Your task to perform on an android device: Open Google Chrome and open the bookmarks view Image 0: 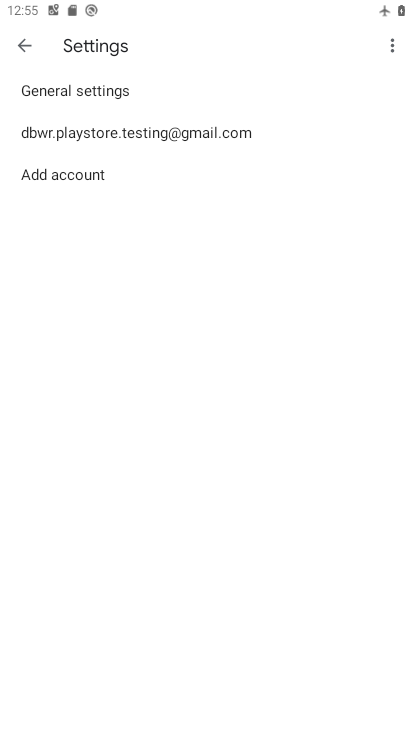
Step 0: press home button
Your task to perform on an android device: Open Google Chrome and open the bookmarks view Image 1: 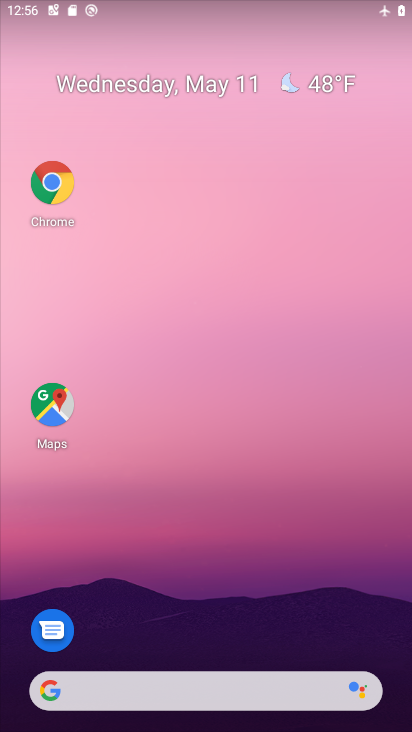
Step 1: drag from (215, 653) to (174, 9)
Your task to perform on an android device: Open Google Chrome and open the bookmarks view Image 2: 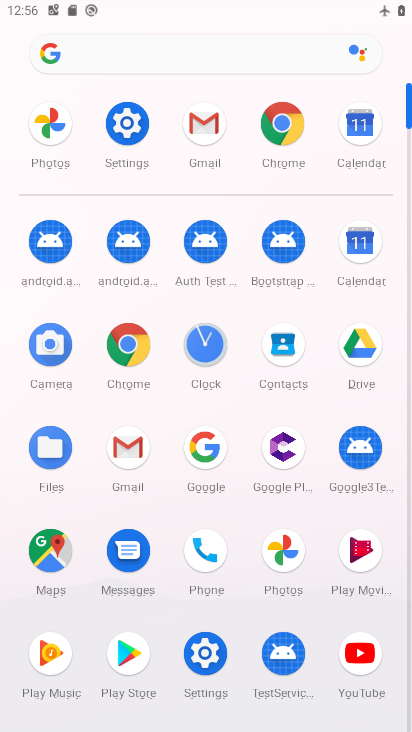
Step 2: click (125, 342)
Your task to perform on an android device: Open Google Chrome and open the bookmarks view Image 3: 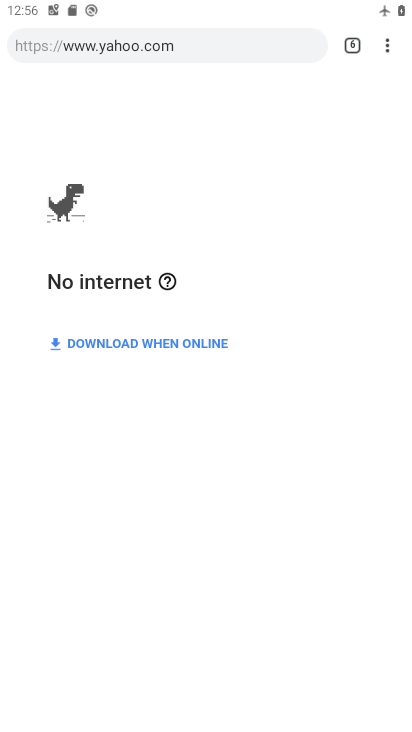
Step 3: click (385, 53)
Your task to perform on an android device: Open Google Chrome and open the bookmarks view Image 4: 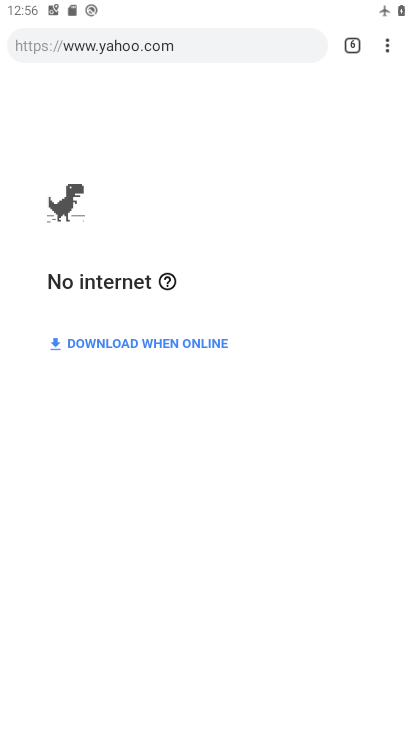
Step 4: task complete